Your task to perform on an android device: Go to CNN.com Image 0: 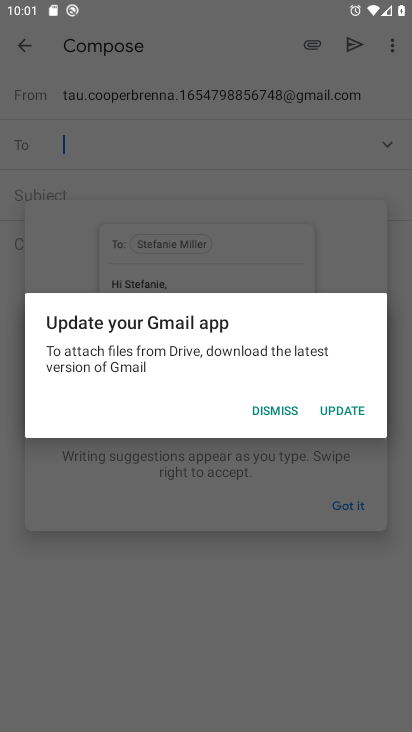
Step 0: drag from (408, 11) to (356, 8)
Your task to perform on an android device: Go to CNN.com Image 1: 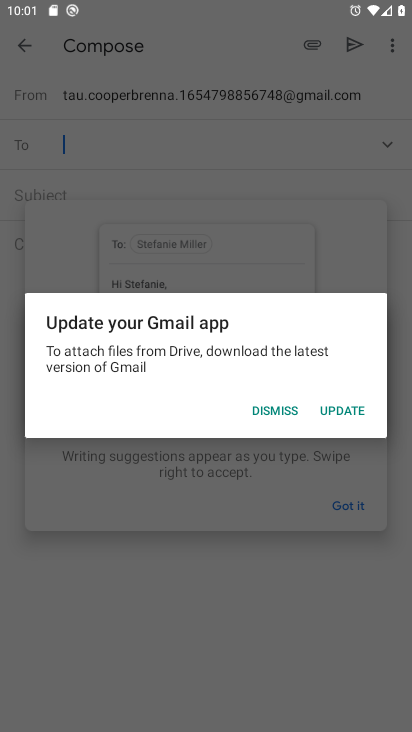
Step 1: click (274, 407)
Your task to perform on an android device: Go to CNN.com Image 2: 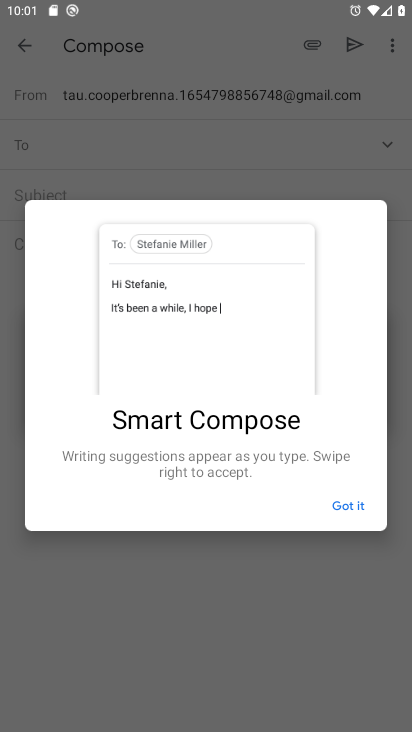
Step 2: drag from (277, 558) to (346, 359)
Your task to perform on an android device: Go to CNN.com Image 3: 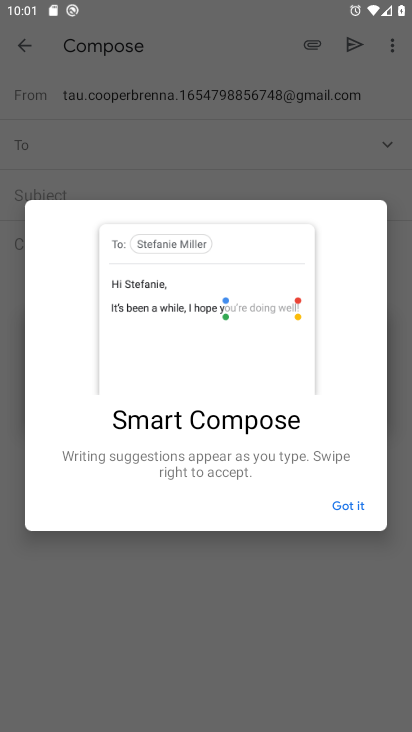
Step 3: click (339, 517)
Your task to perform on an android device: Go to CNN.com Image 4: 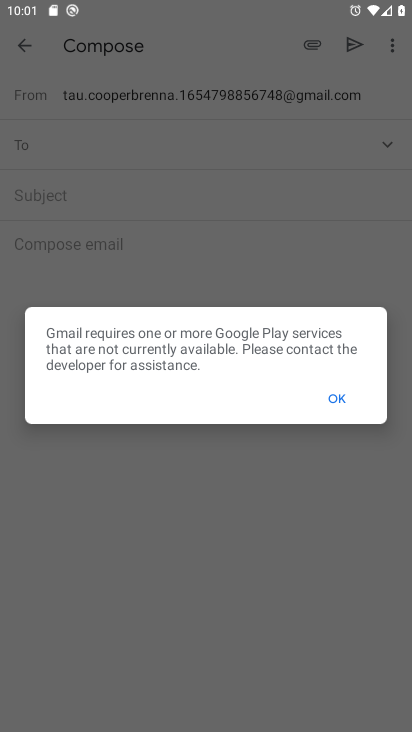
Step 4: press home button
Your task to perform on an android device: Go to CNN.com Image 5: 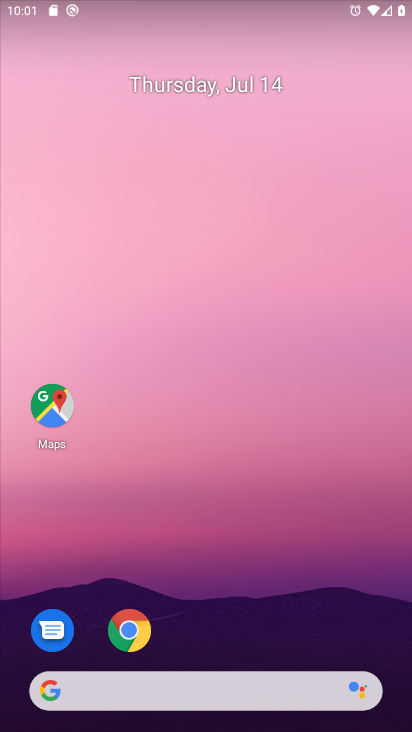
Step 5: drag from (233, 553) to (293, 176)
Your task to perform on an android device: Go to CNN.com Image 6: 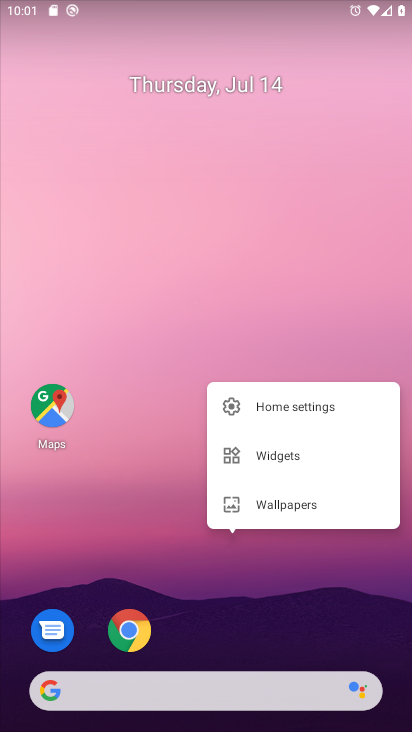
Step 6: click (194, 636)
Your task to perform on an android device: Go to CNN.com Image 7: 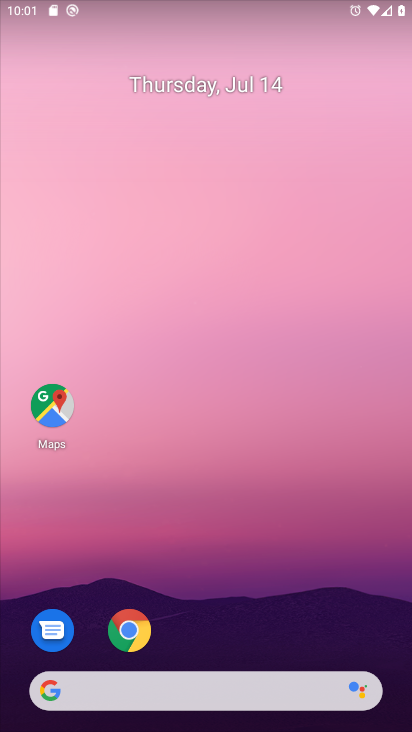
Step 7: drag from (204, 598) to (247, 137)
Your task to perform on an android device: Go to CNN.com Image 8: 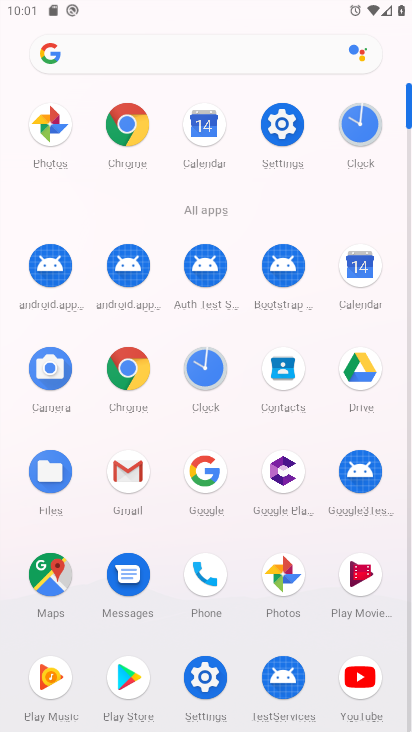
Step 8: click (156, 53)
Your task to perform on an android device: Go to CNN.com Image 9: 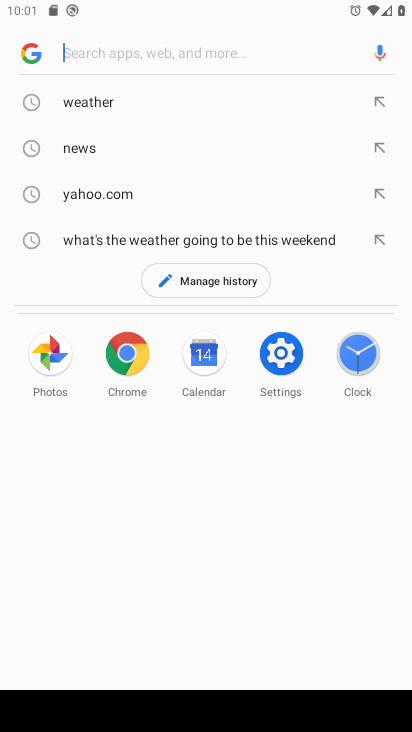
Step 9: type "CNN"
Your task to perform on an android device: Go to CNN.com Image 10: 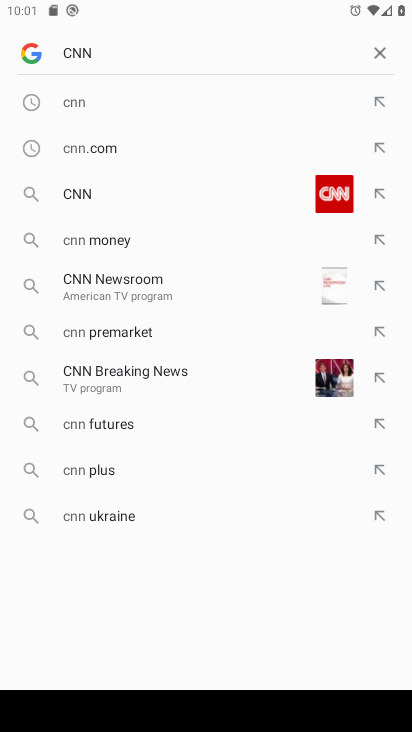
Step 10: click (82, 105)
Your task to perform on an android device: Go to CNN.com Image 11: 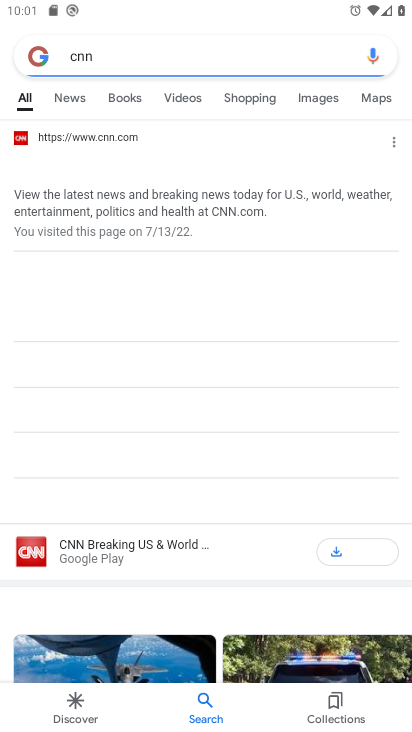
Step 11: task complete